Your task to perform on an android device: Clear the cart on target.com. Add macbook air to the cart on target.com, then select checkout. Image 0: 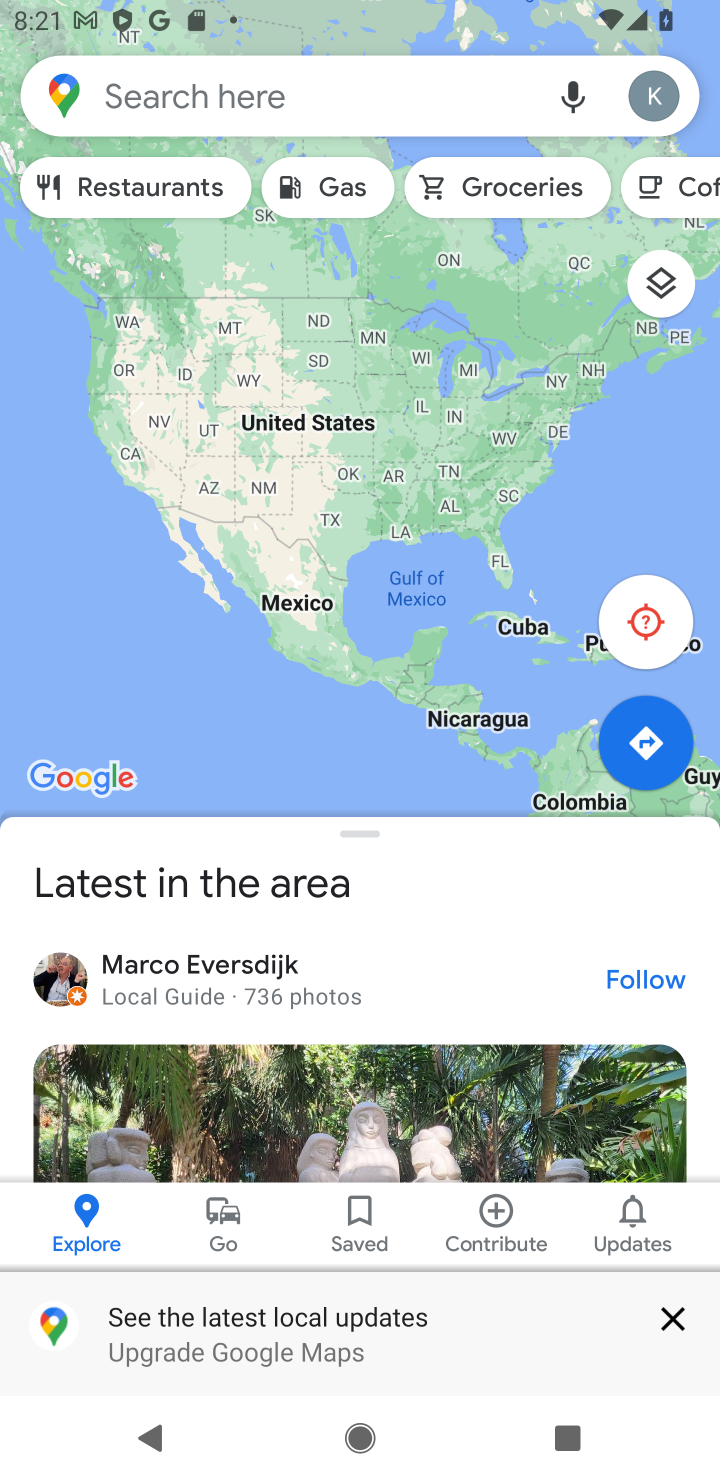
Step 0: press home button
Your task to perform on an android device: Clear the cart on target.com. Add macbook air to the cart on target.com, then select checkout. Image 1: 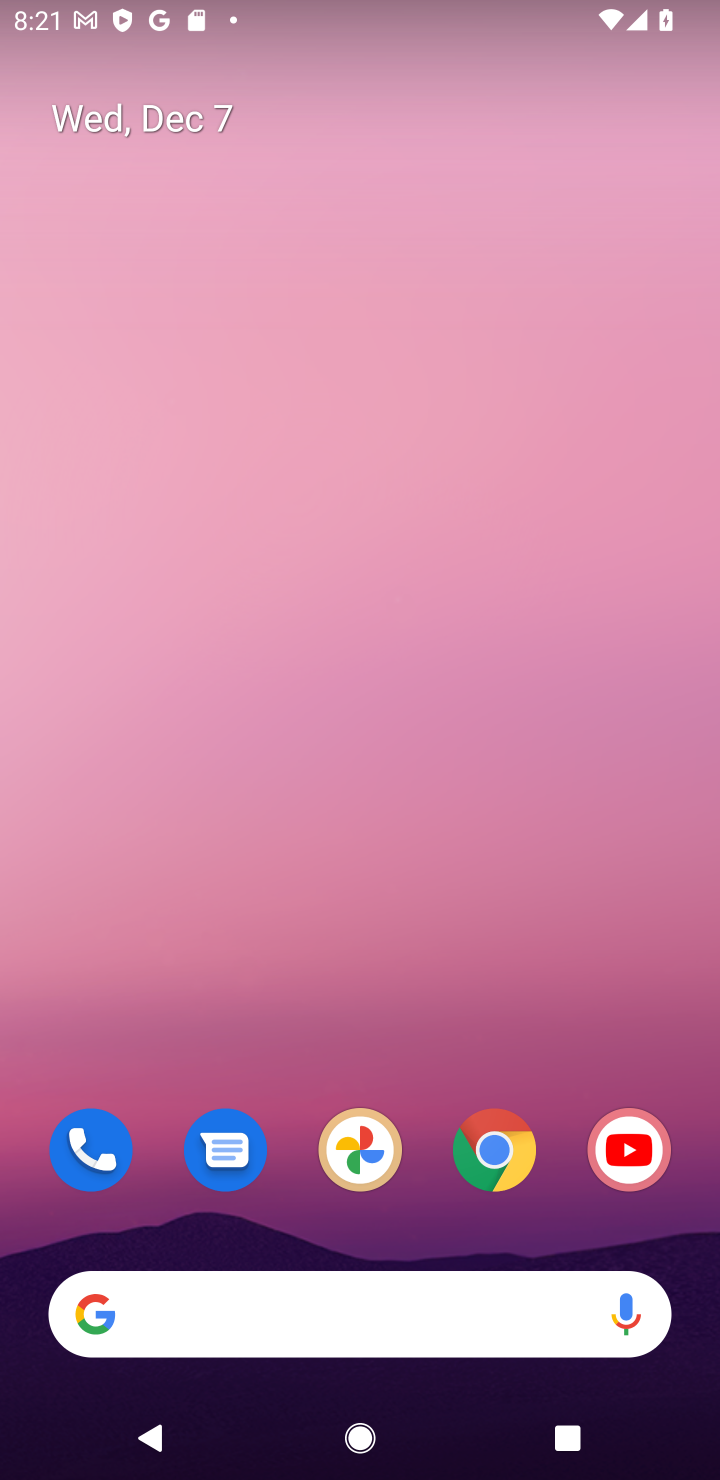
Step 1: click (500, 1154)
Your task to perform on an android device: Clear the cart on target.com. Add macbook air to the cart on target.com, then select checkout. Image 2: 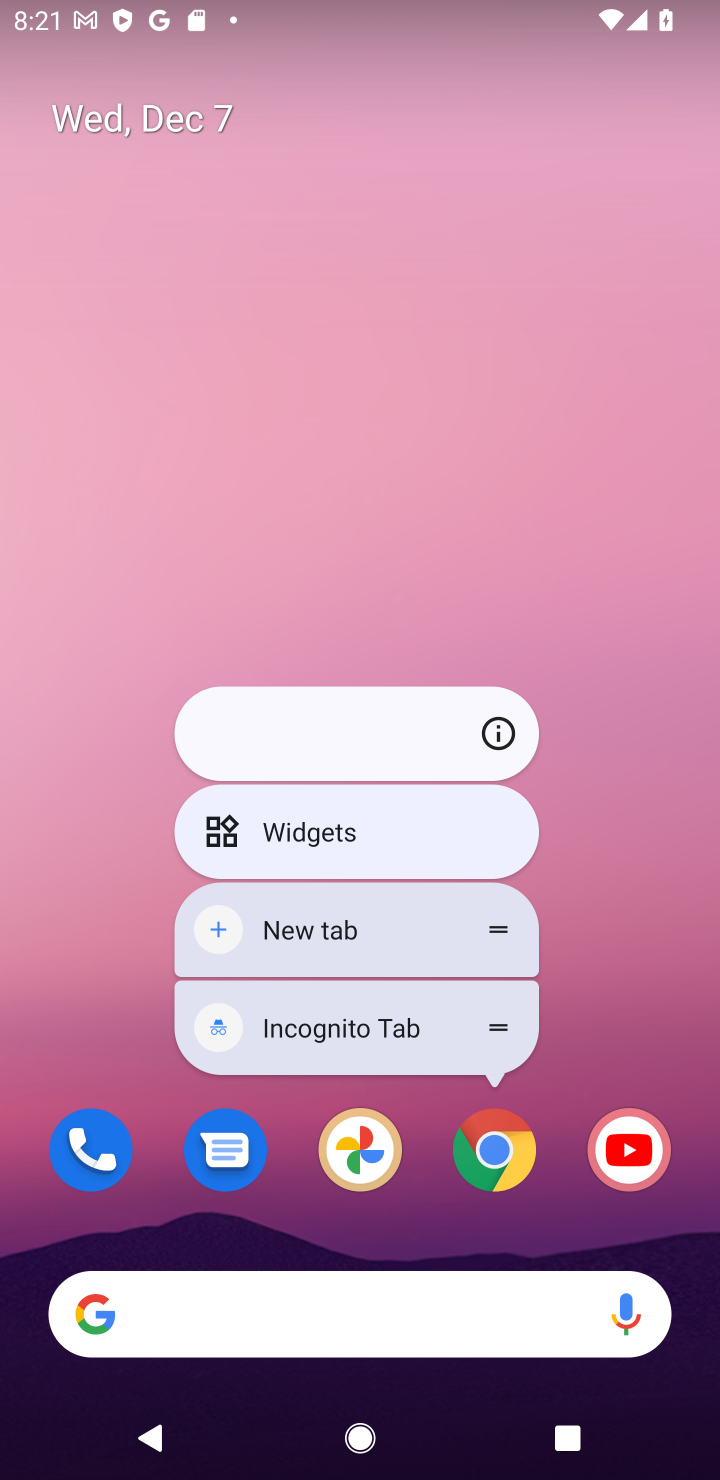
Step 2: click (518, 1164)
Your task to perform on an android device: Clear the cart on target.com. Add macbook air to the cart on target.com, then select checkout. Image 3: 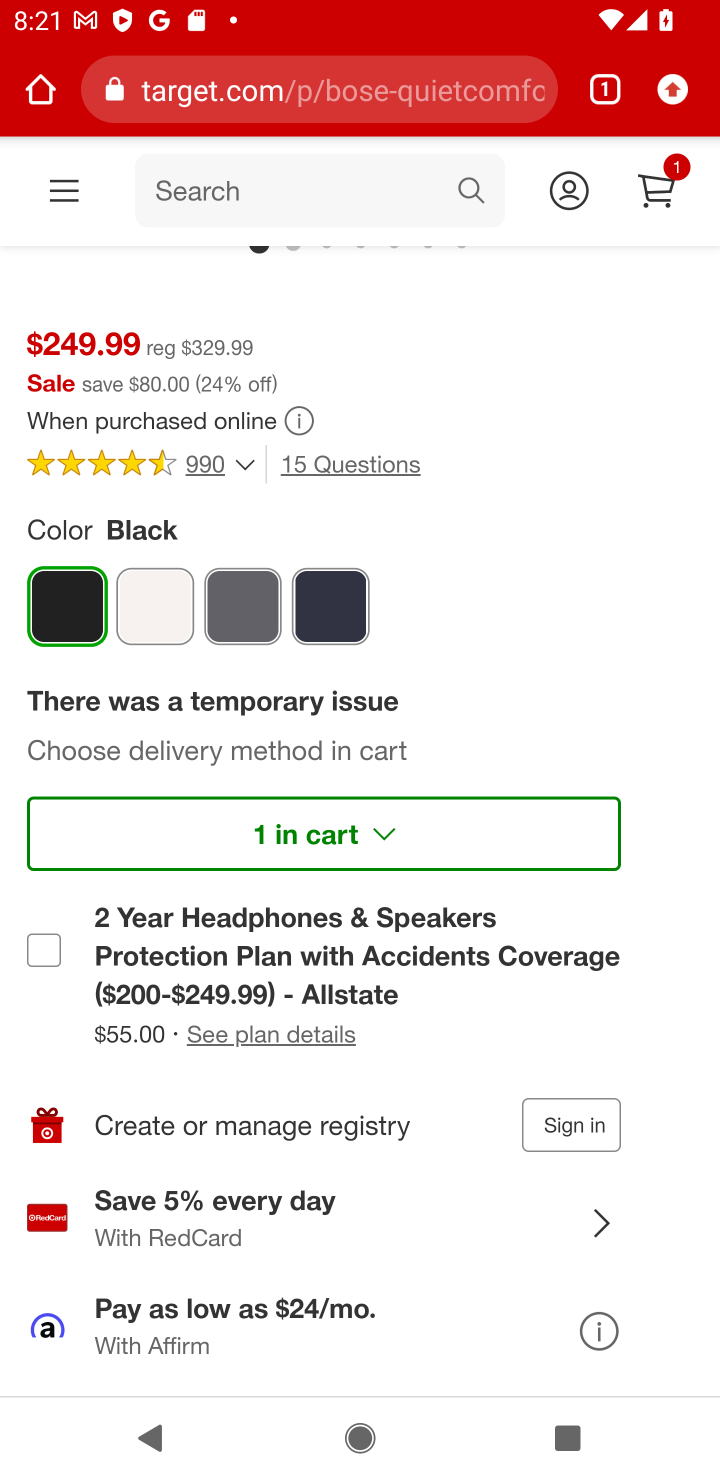
Step 3: click (270, 108)
Your task to perform on an android device: Clear the cart on target.com. Add macbook air to the cart on target.com, then select checkout. Image 4: 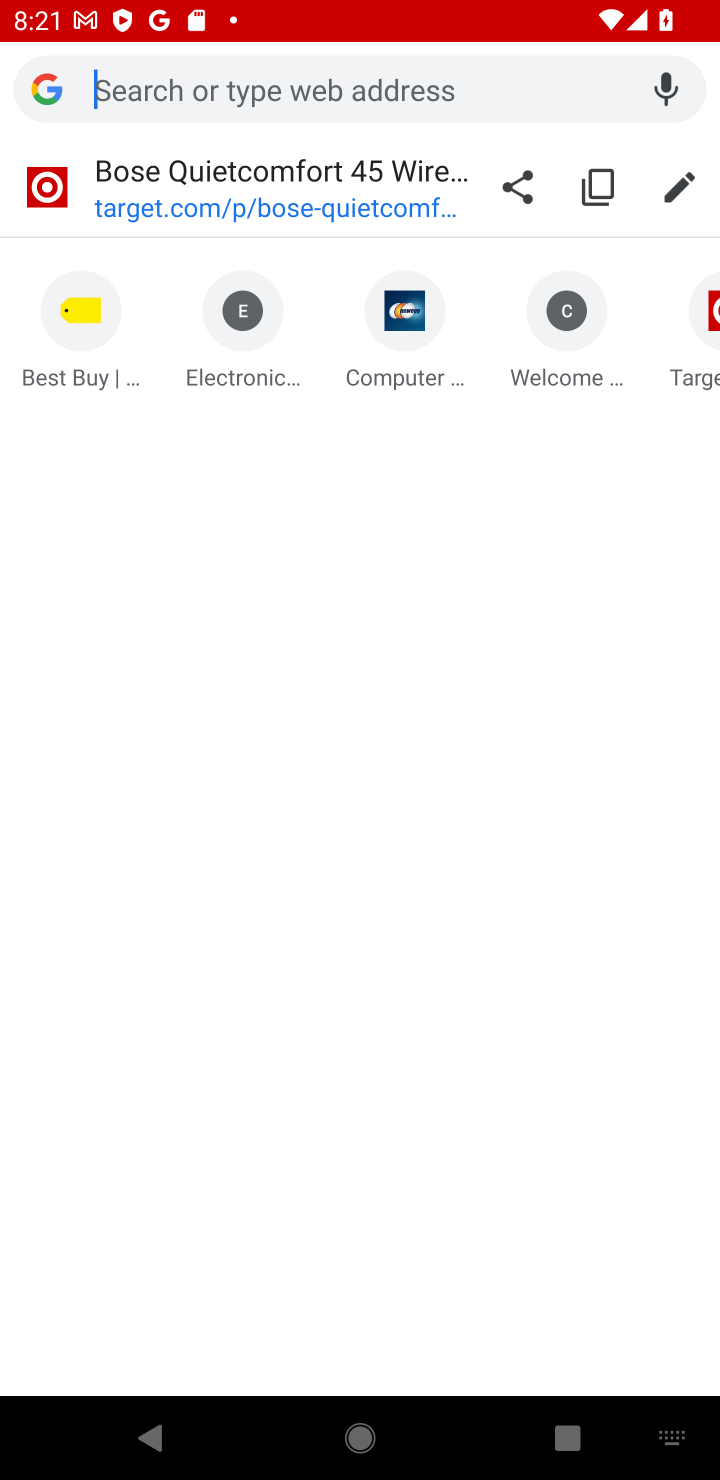
Step 4: type "target.com"
Your task to perform on an android device: Clear the cart on target.com. Add macbook air to the cart on target.com, then select checkout. Image 5: 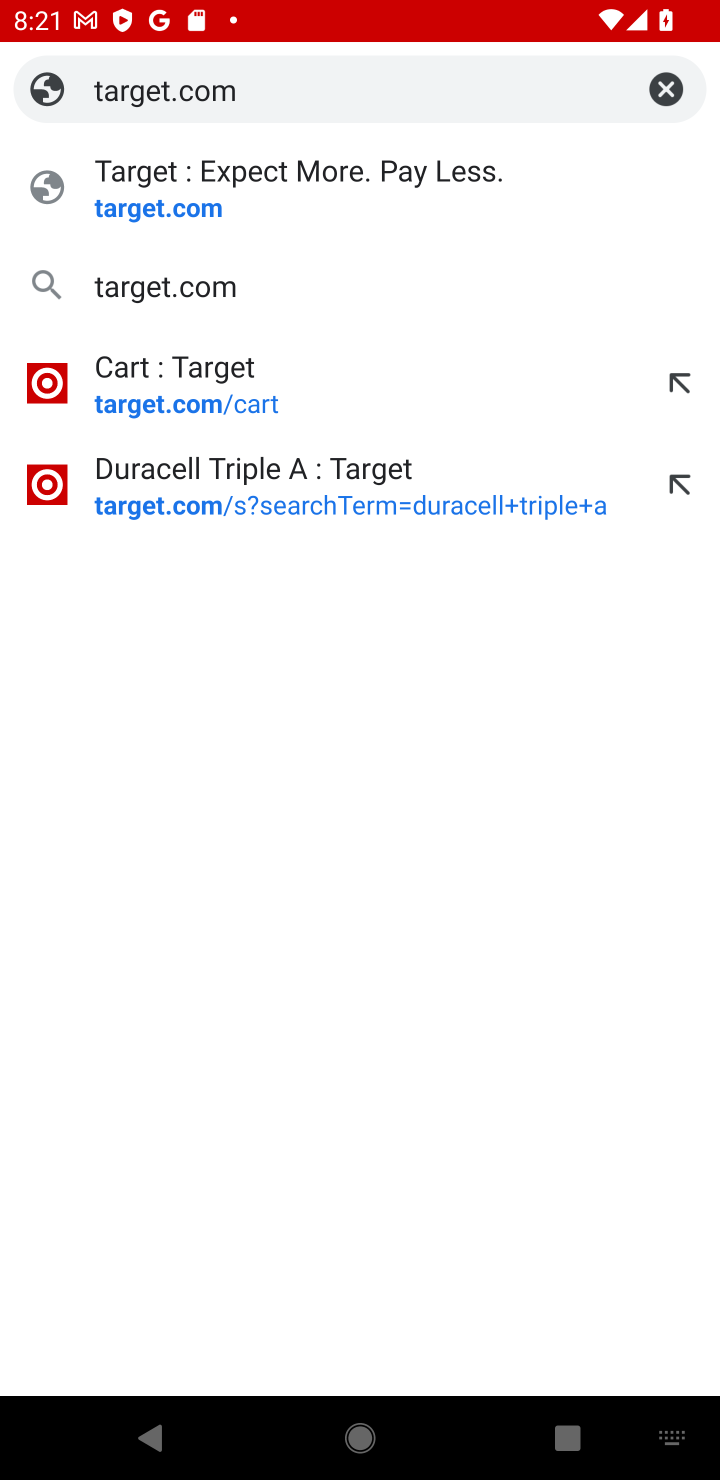
Step 5: click (205, 287)
Your task to perform on an android device: Clear the cart on target.com. Add macbook air to the cart on target.com, then select checkout. Image 6: 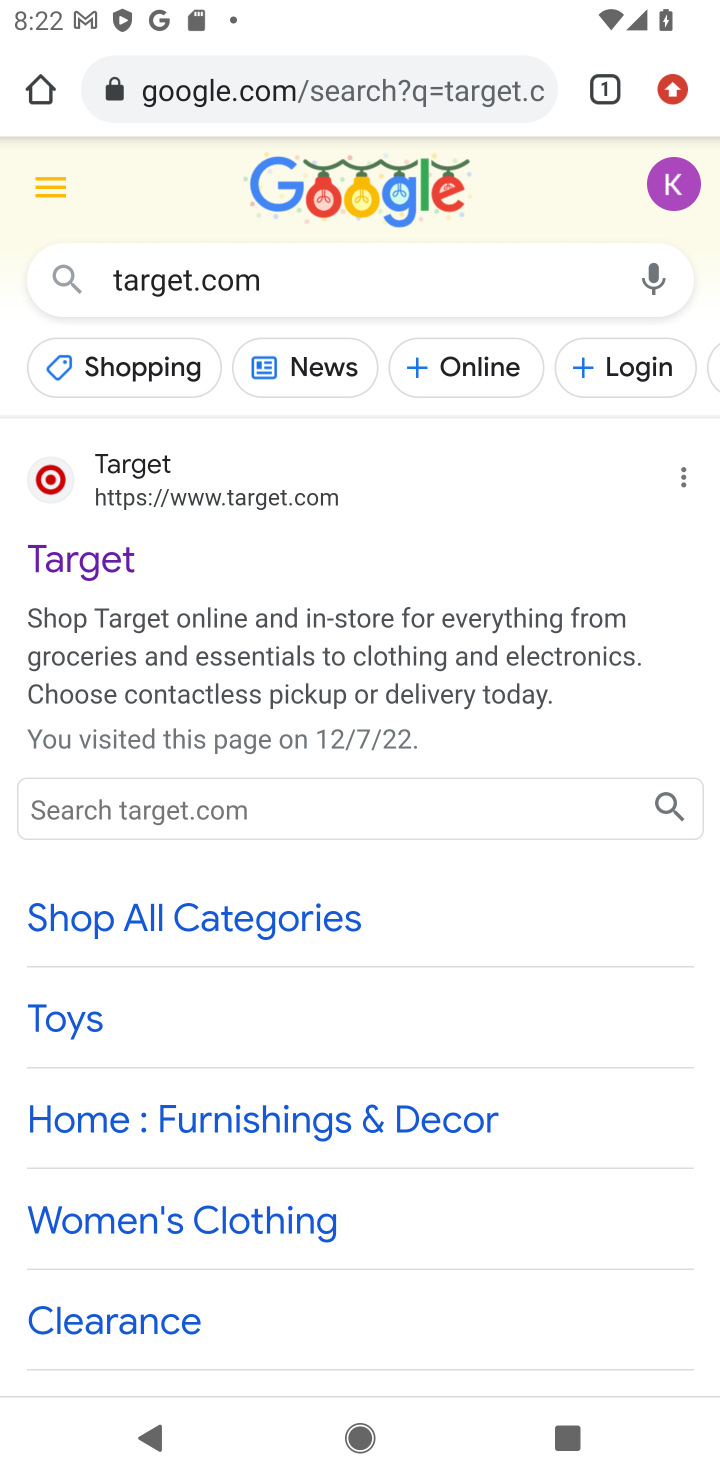
Step 6: click (238, 493)
Your task to perform on an android device: Clear the cart on target.com. Add macbook air to the cart on target.com, then select checkout. Image 7: 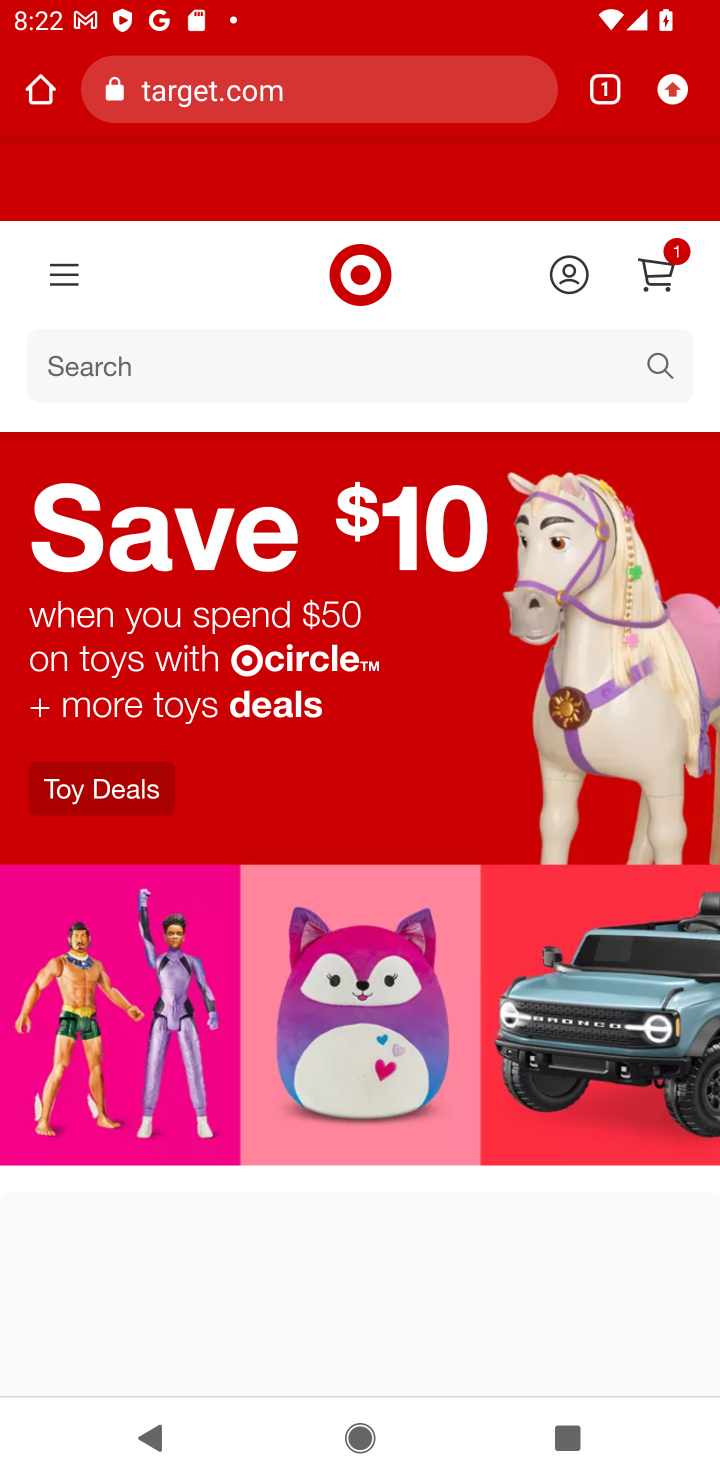
Step 7: click (652, 275)
Your task to perform on an android device: Clear the cart on target.com. Add macbook air to the cart on target.com, then select checkout. Image 8: 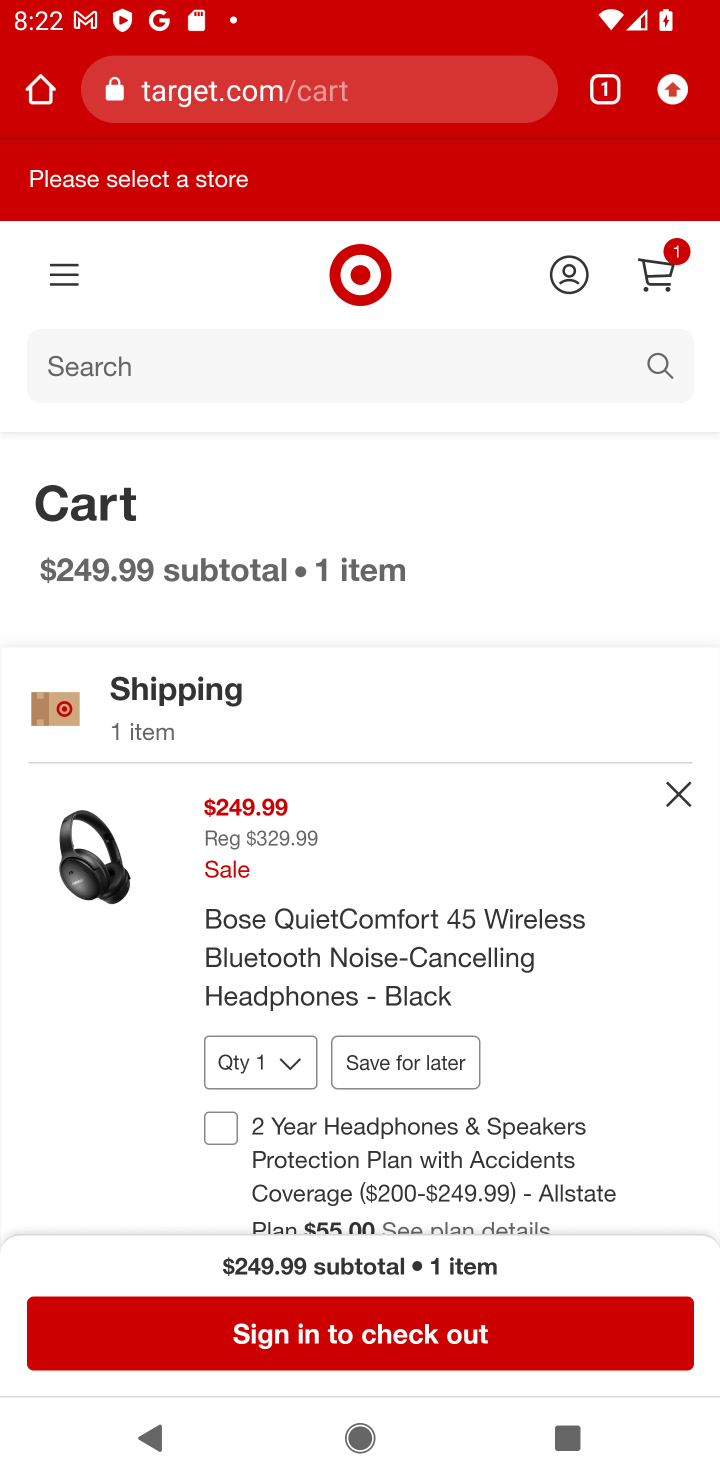
Step 8: click (670, 775)
Your task to perform on an android device: Clear the cart on target.com. Add macbook air to the cart on target.com, then select checkout. Image 9: 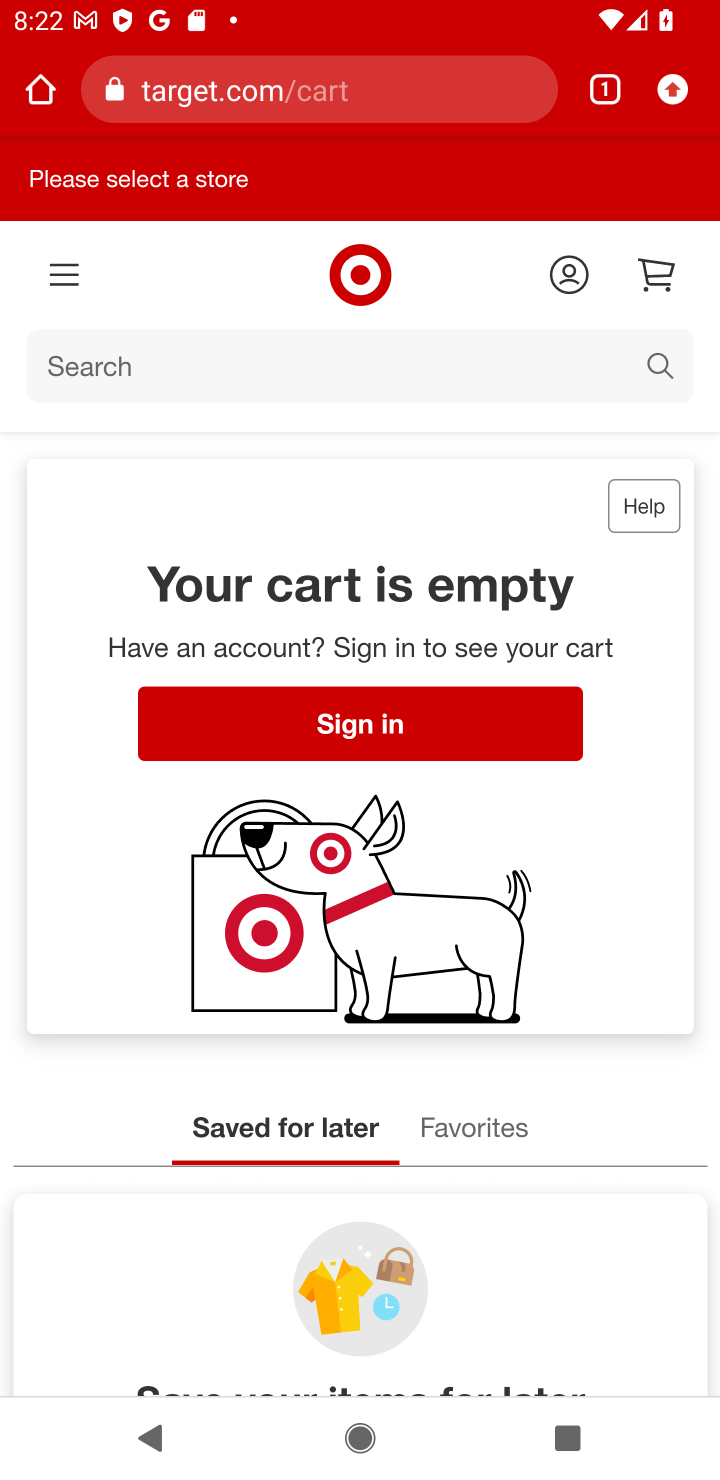
Step 9: click (645, 361)
Your task to perform on an android device: Clear the cart on target.com. Add macbook air to the cart on target.com, then select checkout. Image 10: 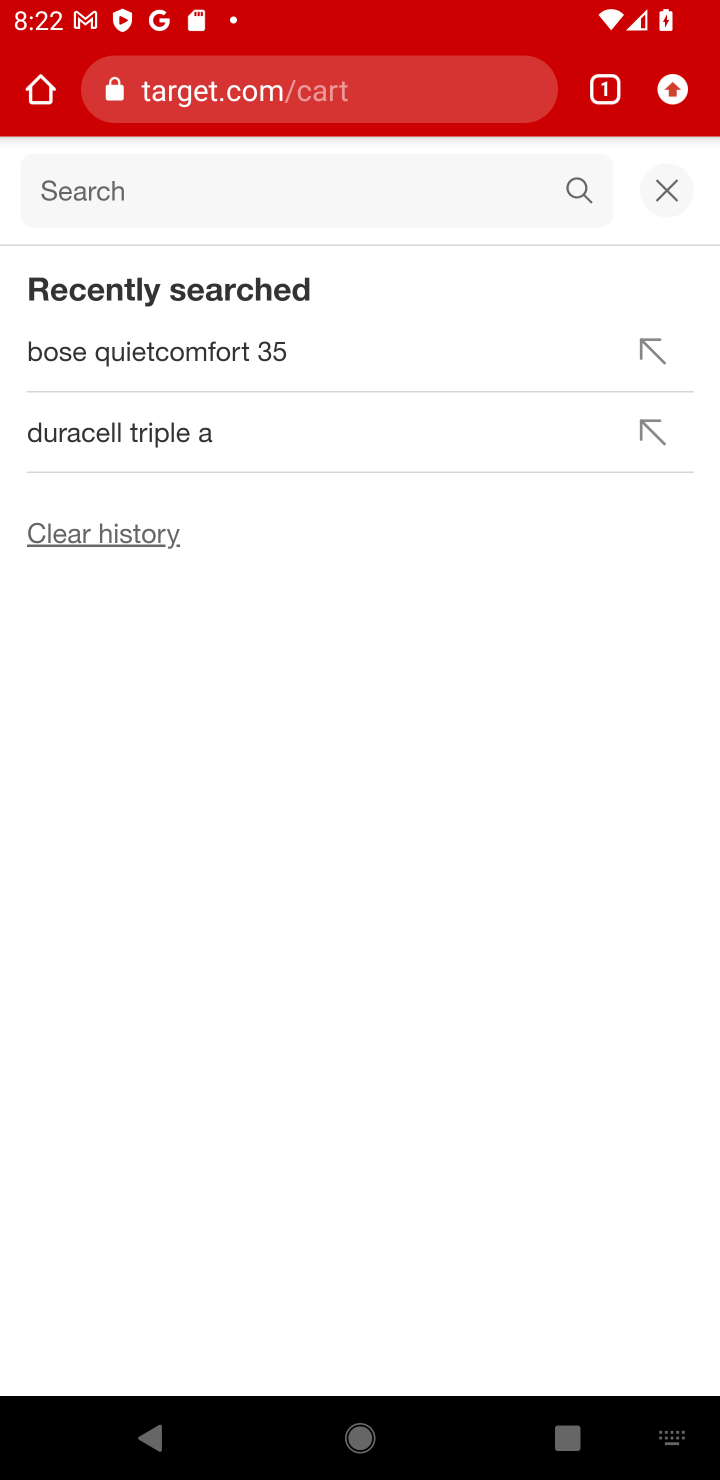
Step 10: type "macbook air"
Your task to perform on an android device: Clear the cart on target.com. Add macbook air to the cart on target.com, then select checkout. Image 11: 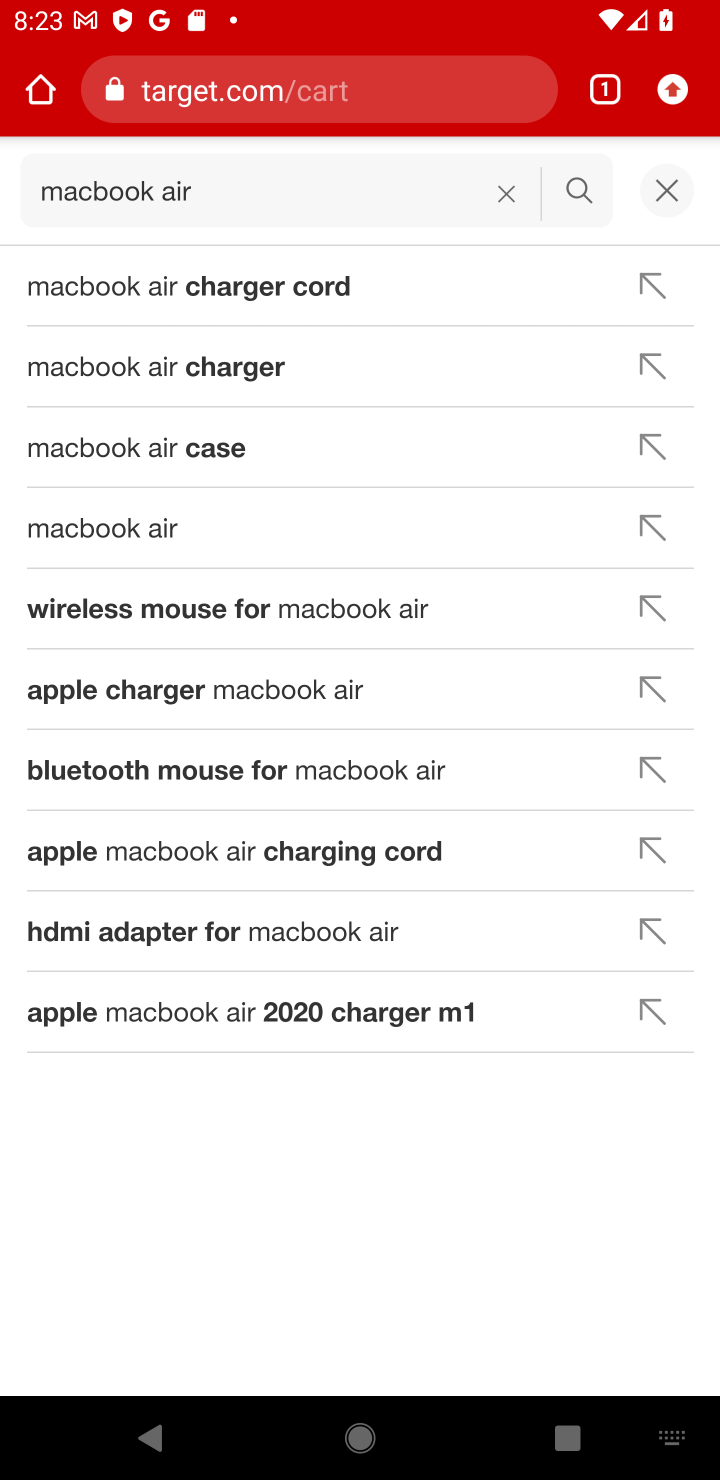
Step 11: click (129, 528)
Your task to perform on an android device: Clear the cart on target.com. Add macbook air to the cart on target.com, then select checkout. Image 12: 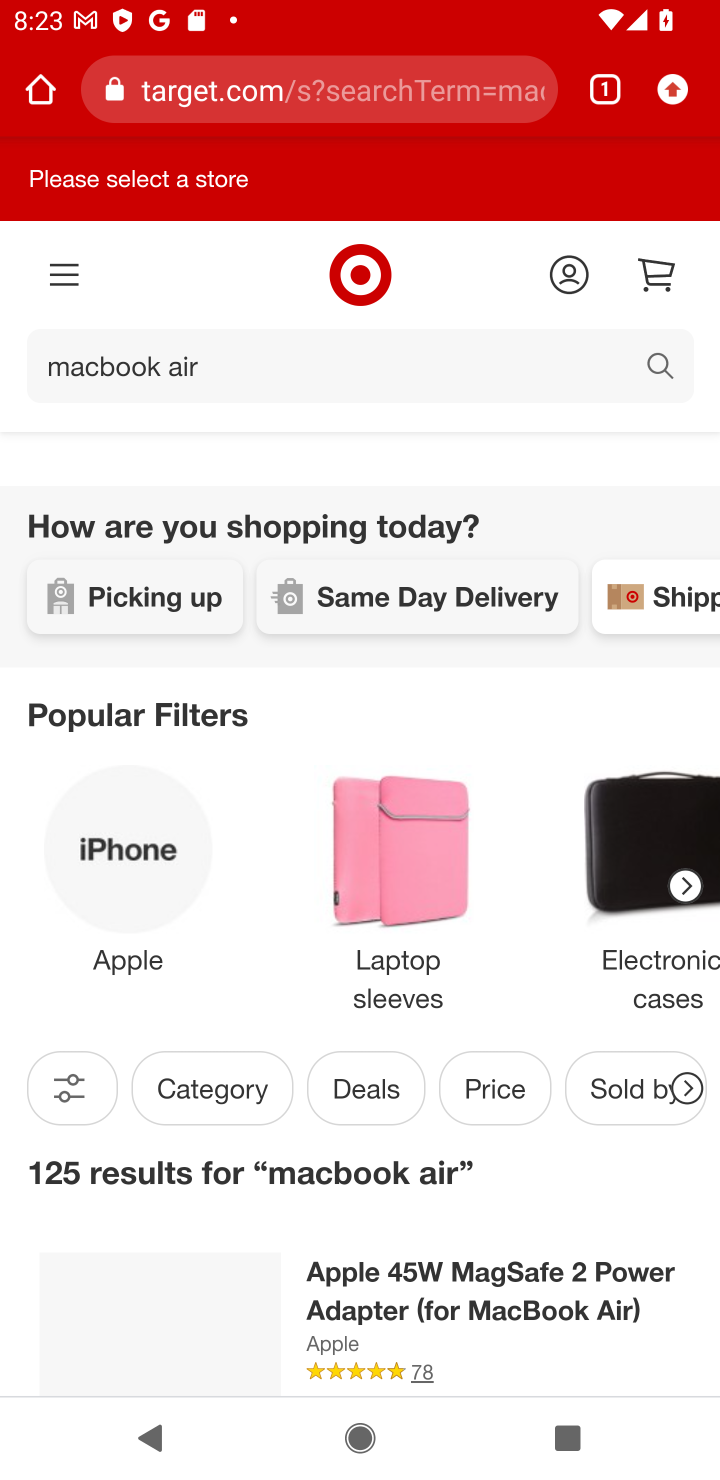
Step 12: task complete